Your task to perform on an android device: What's the weather? Image 0: 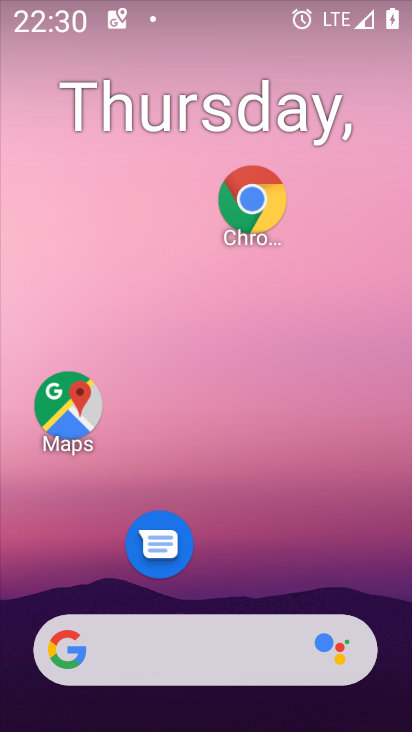
Step 0: click (190, 641)
Your task to perform on an android device: What's the weather? Image 1: 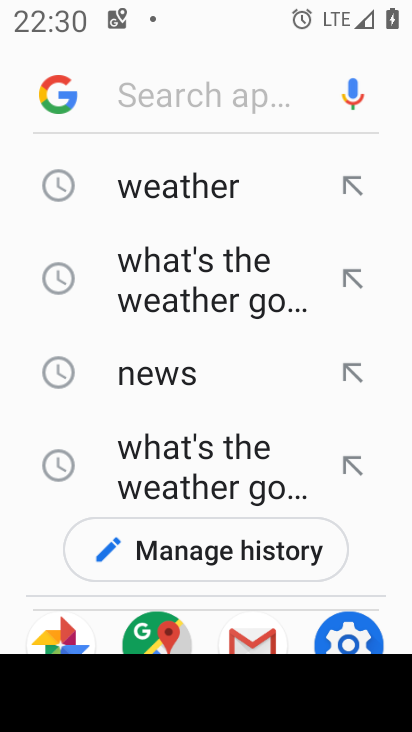
Step 1: click (167, 180)
Your task to perform on an android device: What's the weather? Image 2: 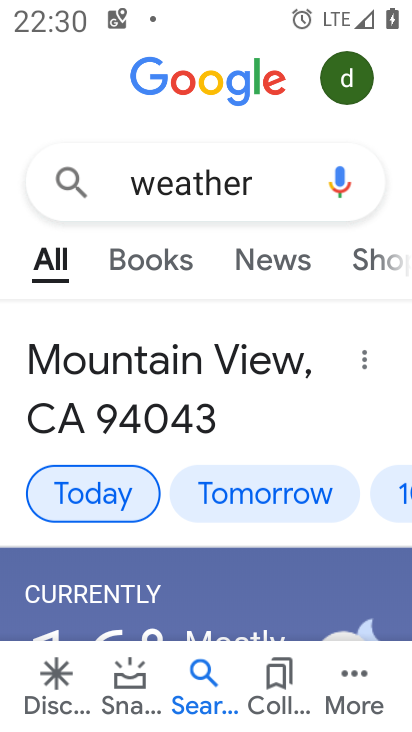
Step 2: task complete